Your task to perform on an android device: turn pop-ups on in chrome Image 0: 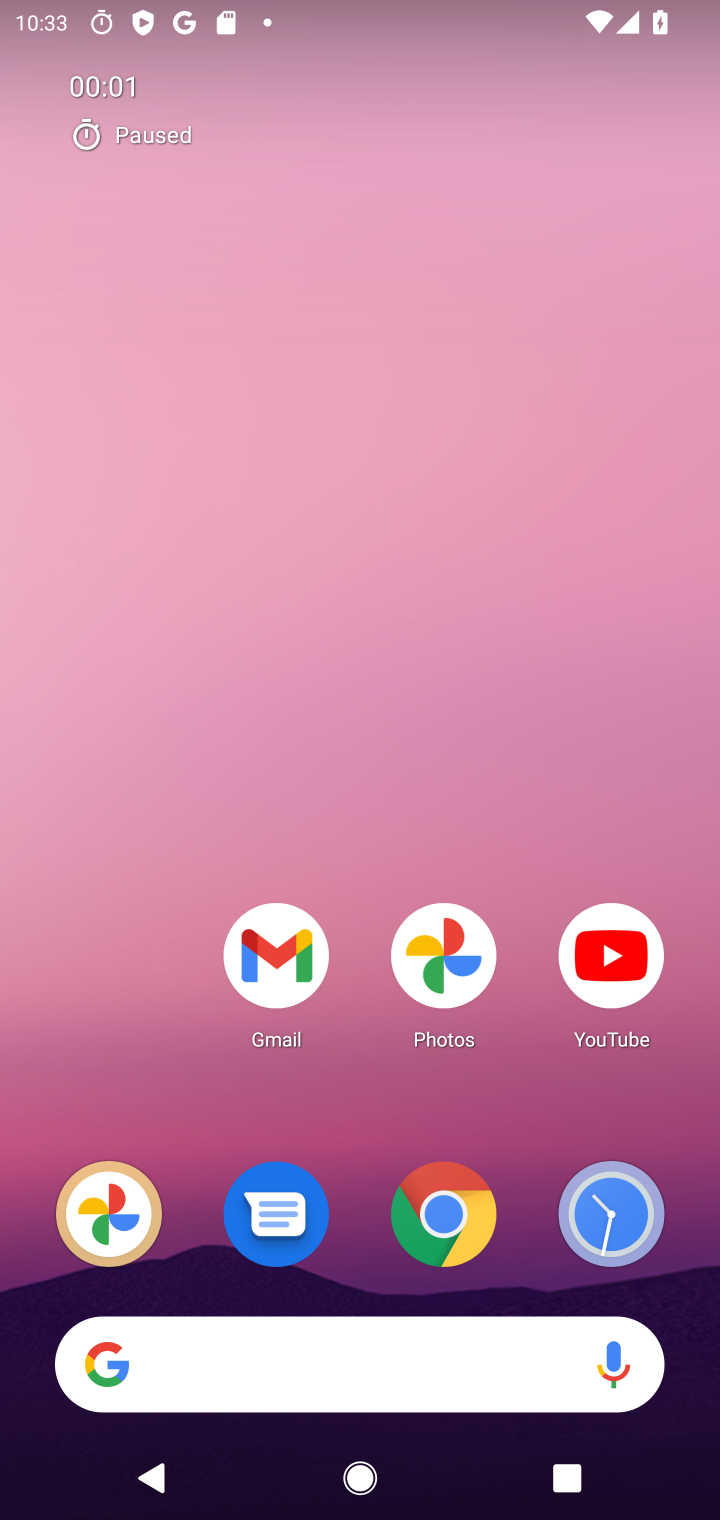
Step 0: click (441, 1207)
Your task to perform on an android device: turn pop-ups on in chrome Image 1: 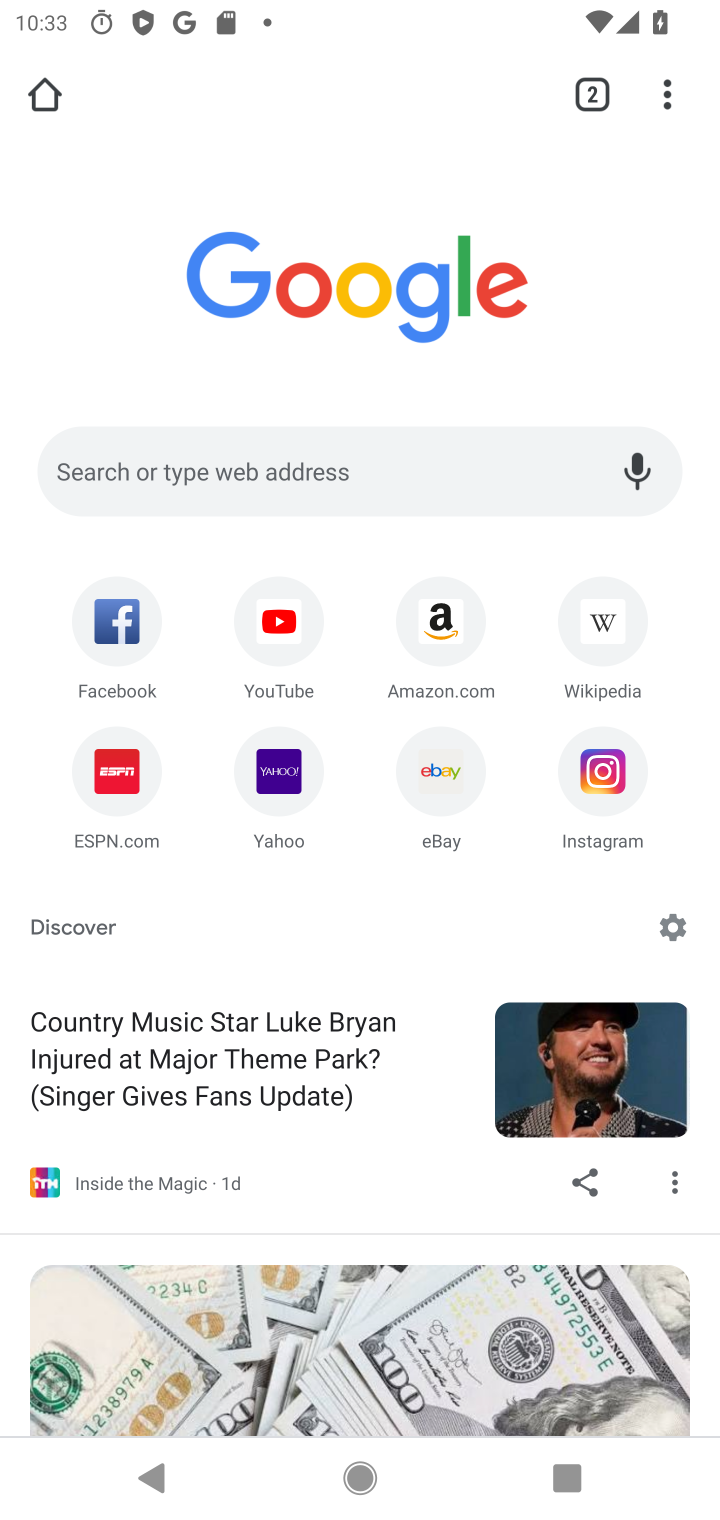
Step 1: click (675, 86)
Your task to perform on an android device: turn pop-ups on in chrome Image 2: 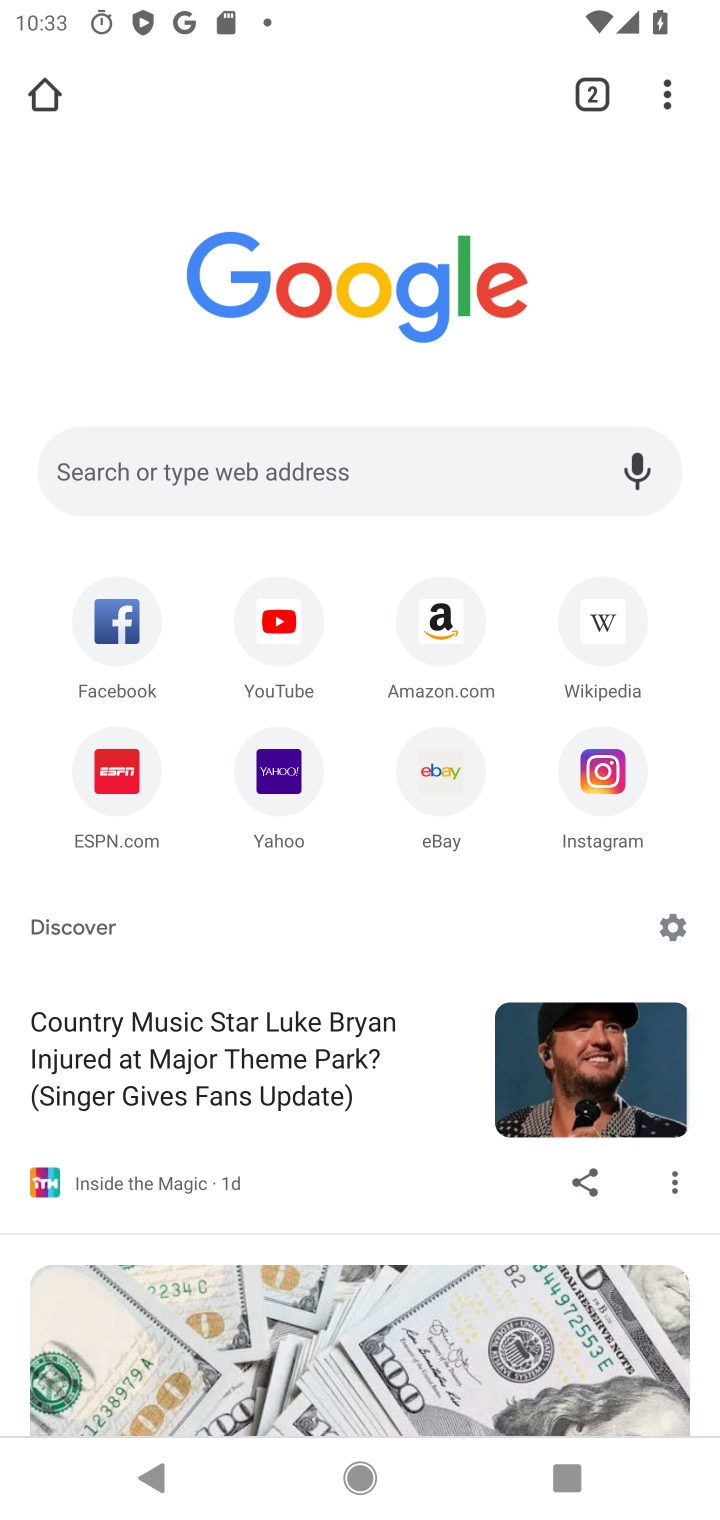
Step 2: click (670, 96)
Your task to perform on an android device: turn pop-ups on in chrome Image 3: 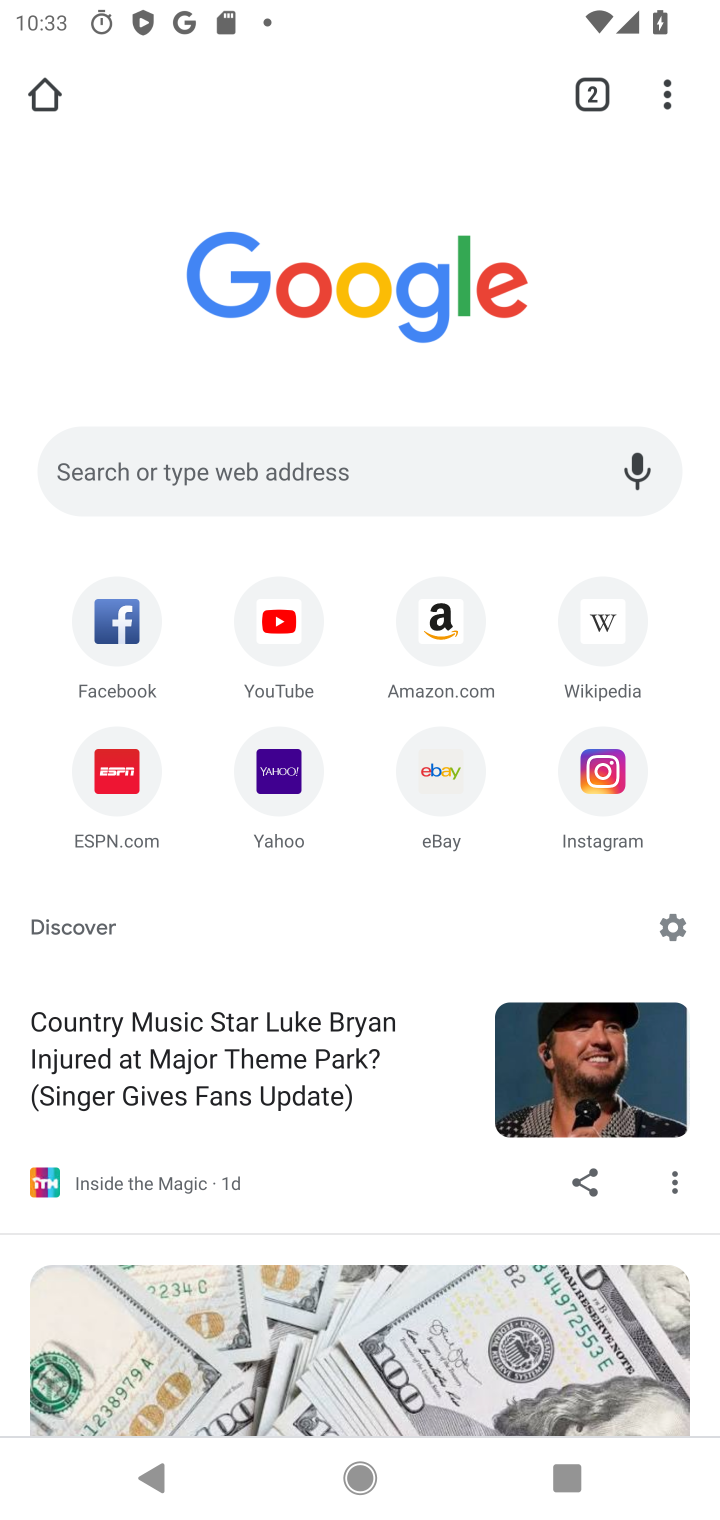
Step 3: click (684, 98)
Your task to perform on an android device: turn pop-ups on in chrome Image 4: 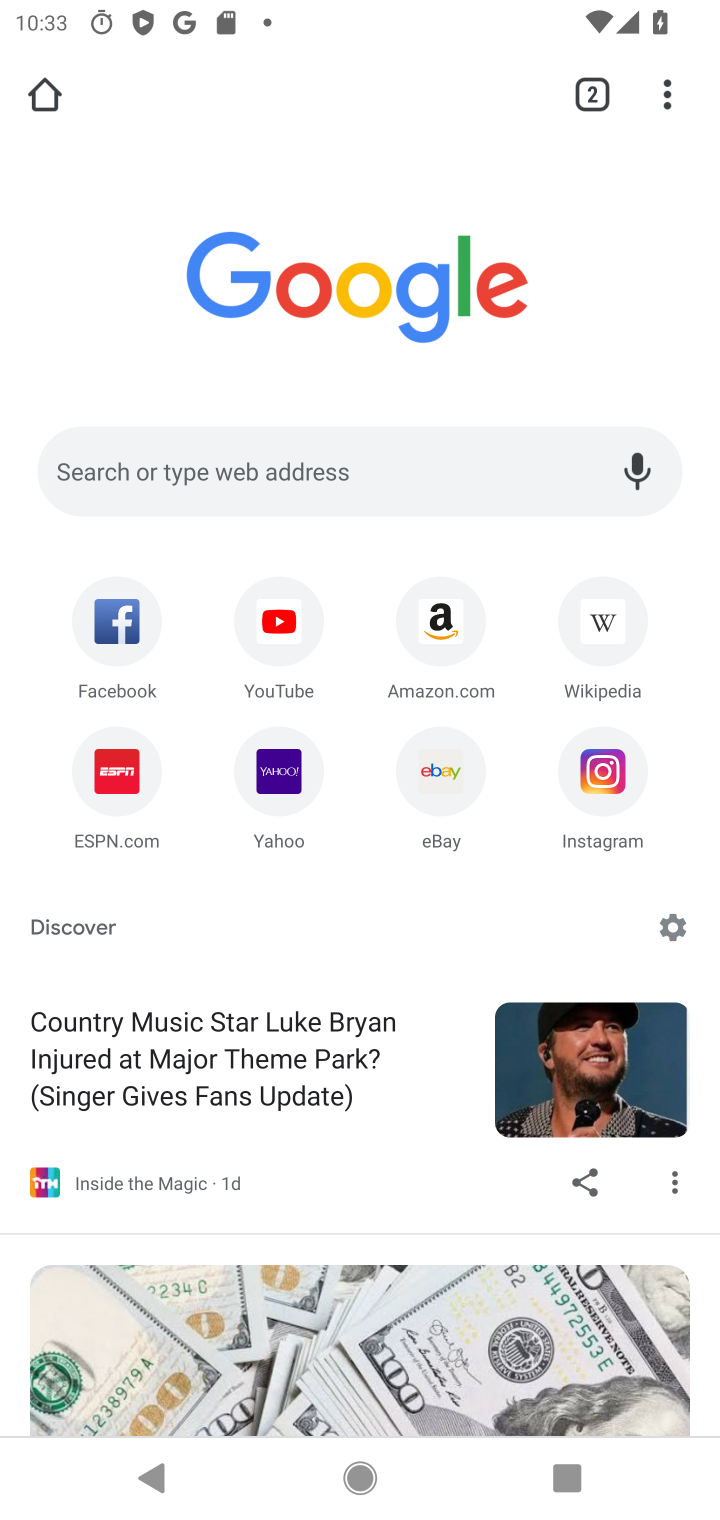
Step 4: click (684, 98)
Your task to perform on an android device: turn pop-ups on in chrome Image 5: 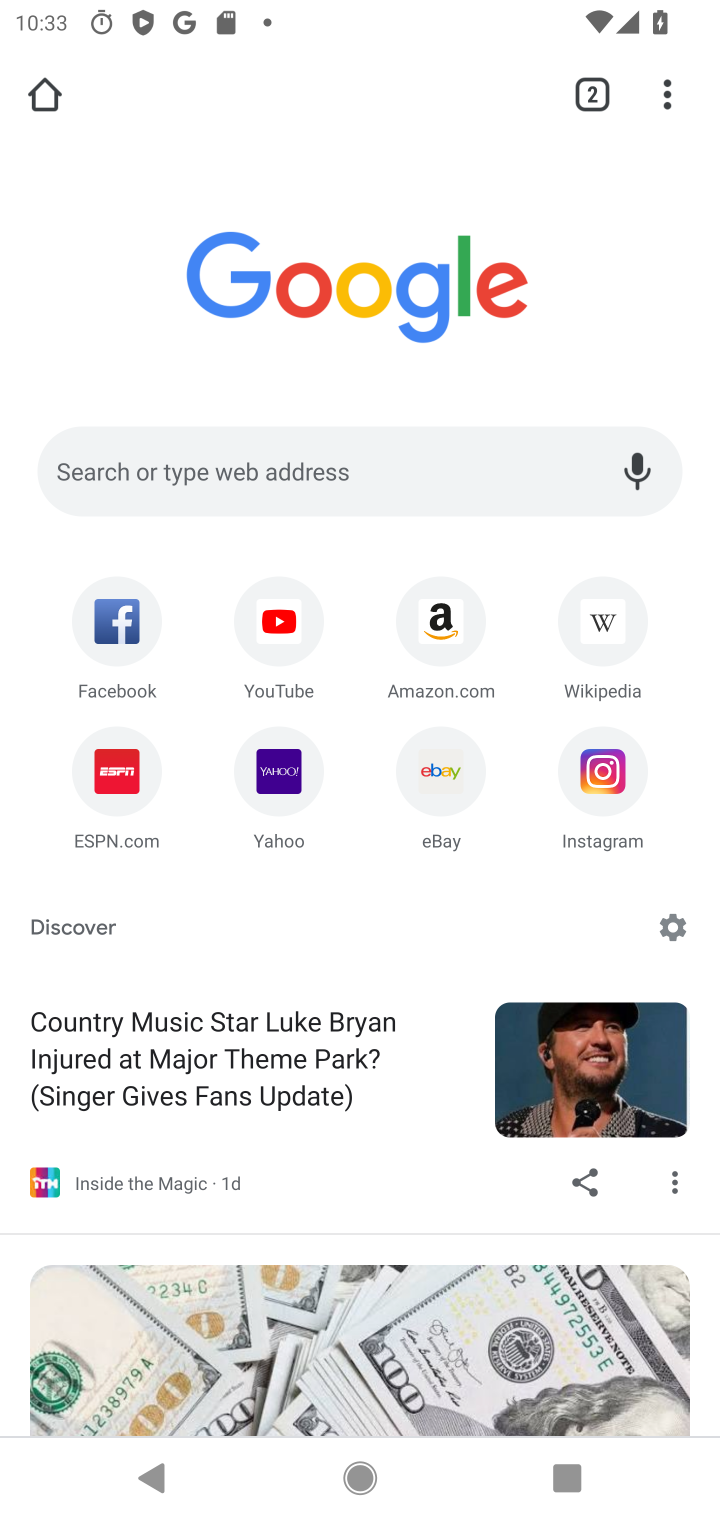
Step 5: task complete